Your task to perform on an android device: Do I have any events today? Image 0: 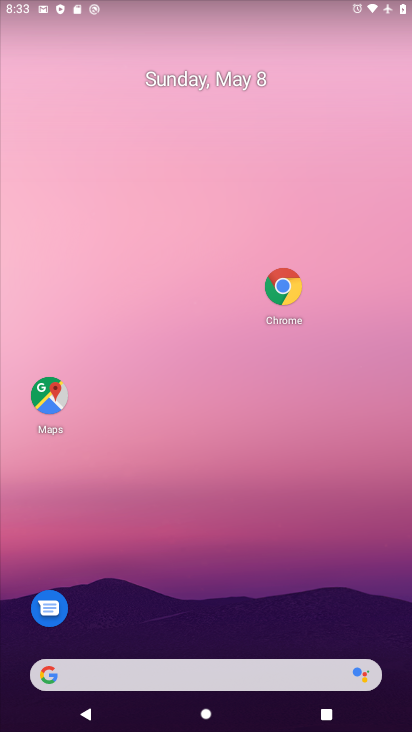
Step 0: drag from (169, 681) to (319, 198)
Your task to perform on an android device: Do I have any events today? Image 1: 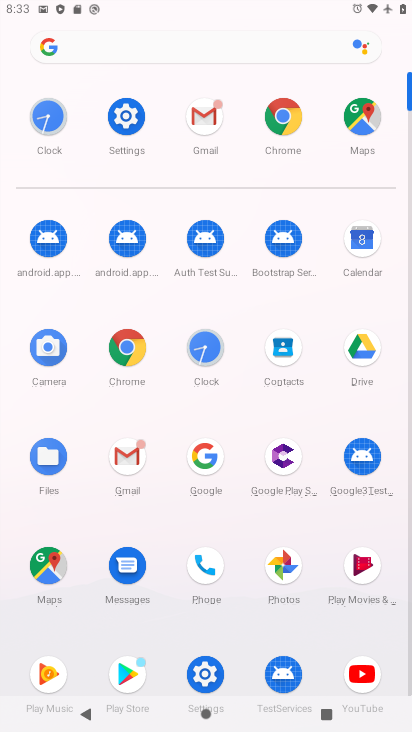
Step 1: click (363, 246)
Your task to perform on an android device: Do I have any events today? Image 2: 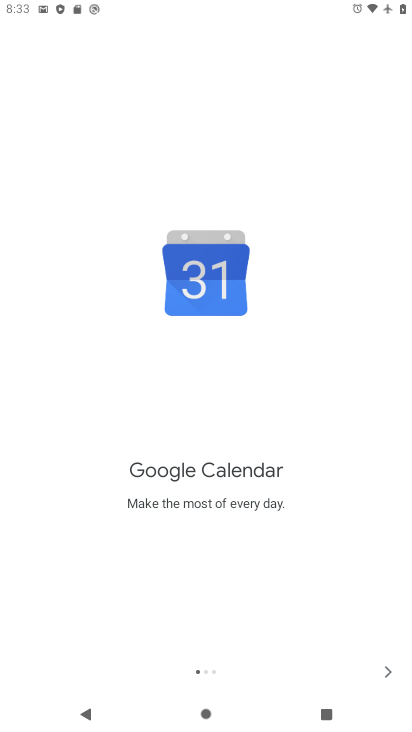
Step 2: click (389, 669)
Your task to perform on an android device: Do I have any events today? Image 3: 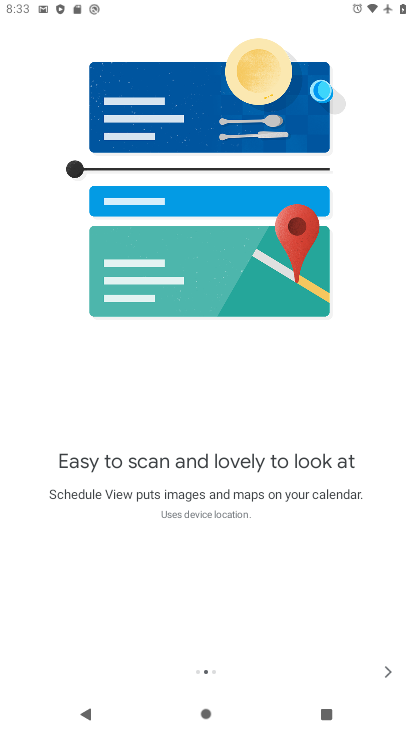
Step 3: click (389, 669)
Your task to perform on an android device: Do I have any events today? Image 4: 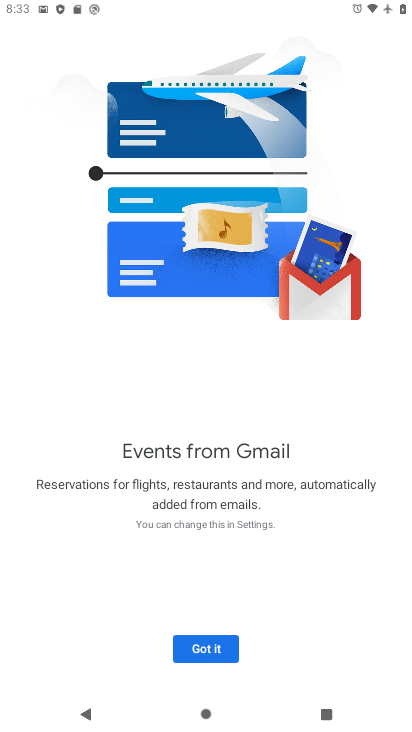
Step 4: click (207, 653)
Your task to perform on an android device: Do I have any events today? Image 5: 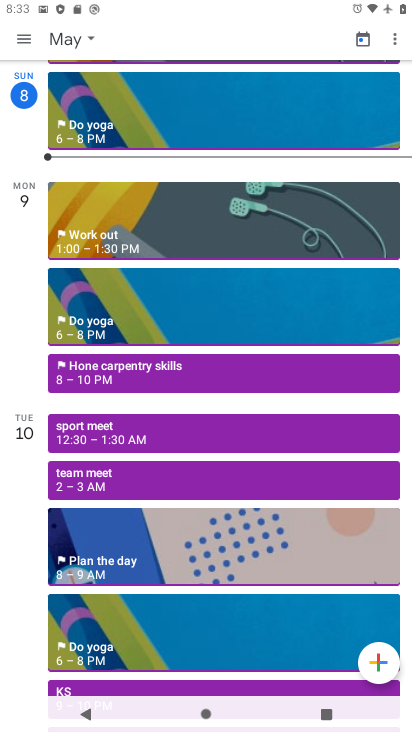
Step 5: click (61, 41)
Your task to perform on an android device: Do I have any events today? Image 6: 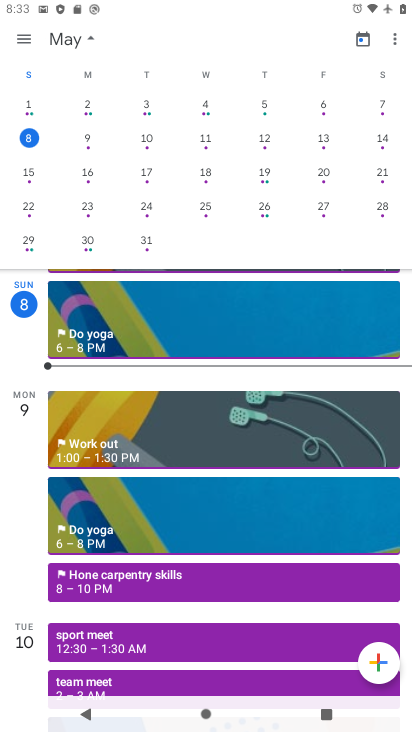
Step 6: click (26, 36)
Your task to perform on an android device: Do I have any events today? Image 7: 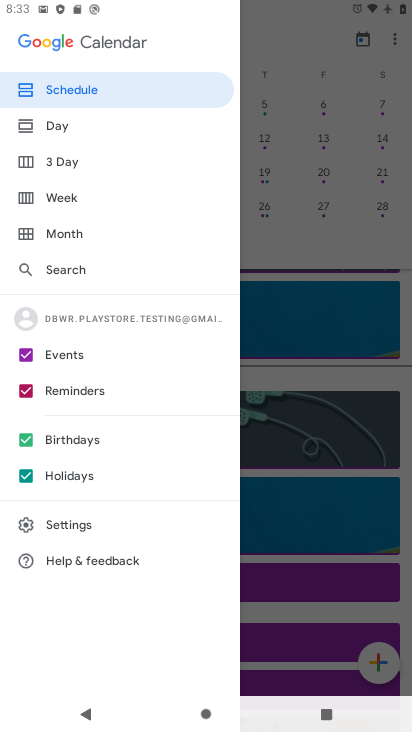
Step 7: click (55, 124)
Your task to perform on an android device: Do I have any events today? Image 8: 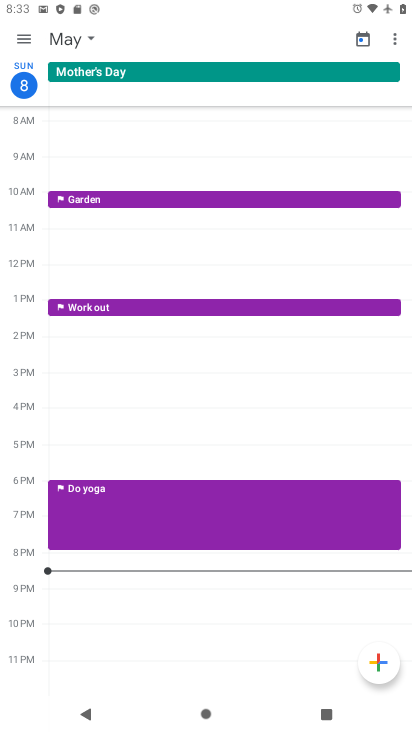
Step 8: click (24, 40)
Your task to perform on an android device: Do I have any events today? Image 9: 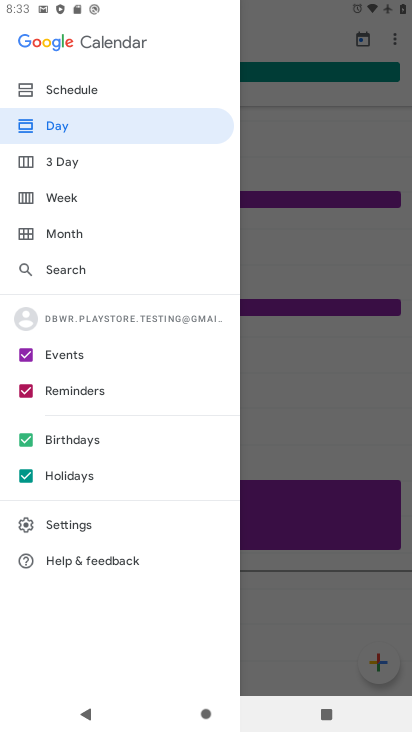
Step 9: click (89, 90)
Your task to perform on an android device: Do I have any events today? Image 10: 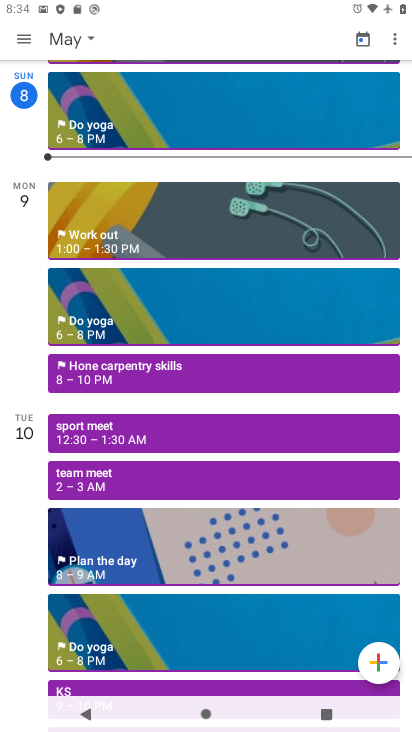
Step 10: click (195, 116)
Your task to perform on an android device: Do I have any events today? Image 11: 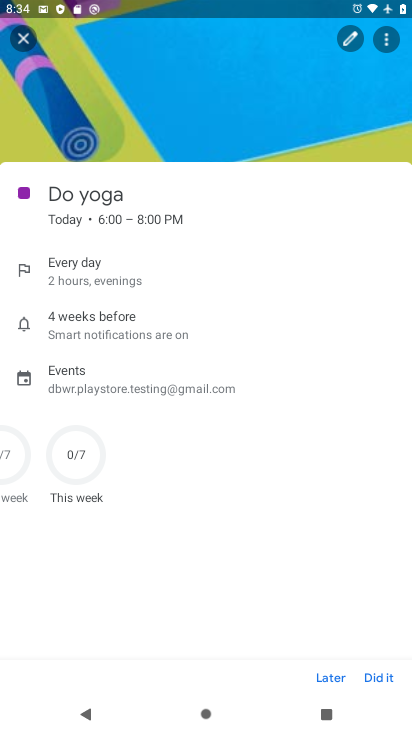
Step 11: task complete